Your task to perform on an android device: Open CNN.com Image 0: 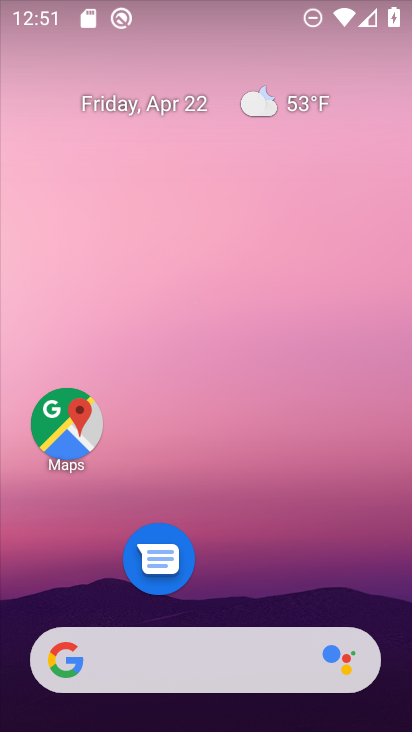
Step 0: drag from (231, 406) to (214, 111)
Your task to perform on an android device: Open CNN.com Image 1: 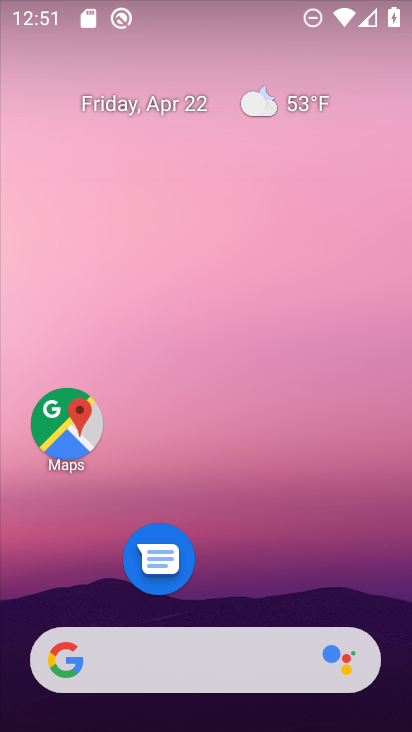
Step 1: drag from (238, 678) to (239, 92)
Your task to perform on an android device: Open CNN.com Image 2: 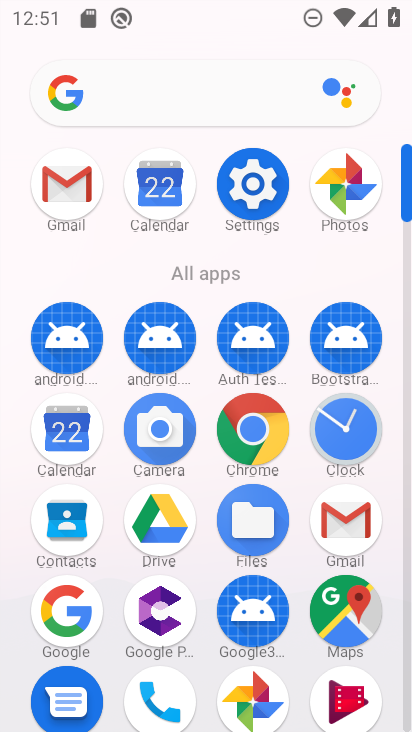
Step 2: click (253, 427)
Your task to perform on an android device: Open CNN.com Image 3: 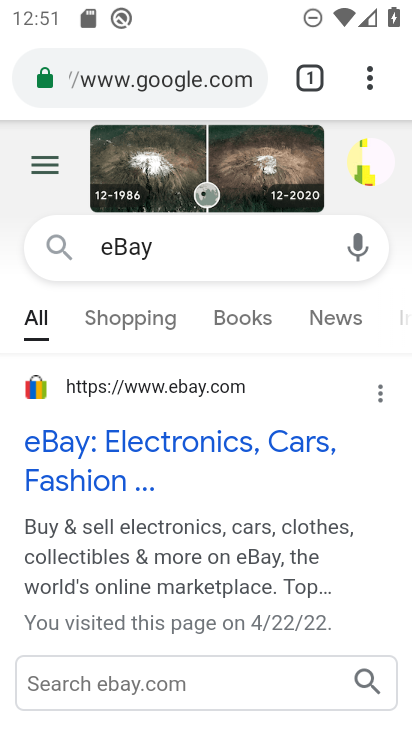
Step 3: drag from (368, 81) to (113, 171)
Your task to perform on an android device: Open CNN.com Image 4: 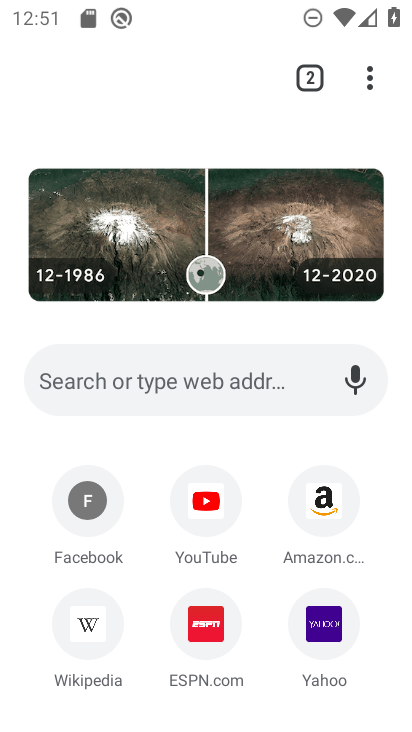
Step 4: click (213, 374)
Your task to perform on an android device: Open CNN.com Image 5: 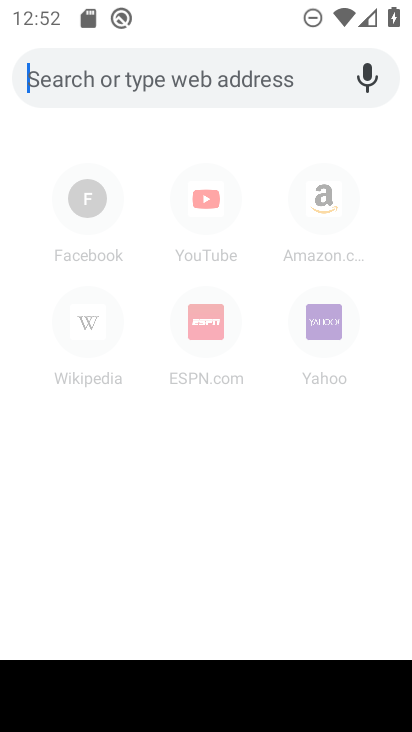
Step 5: type "CNN.com"
Your task to perform on an android device: Open CNN.com Image 6: 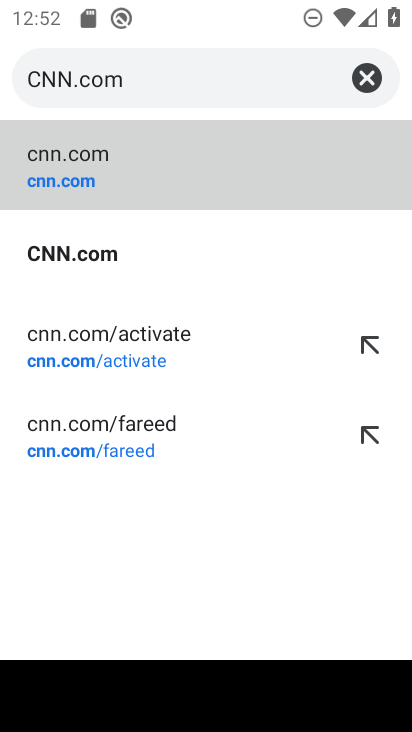
Step 6: click (60, 149)
Your task to perform on an android device: Open CNN.com Image 7: 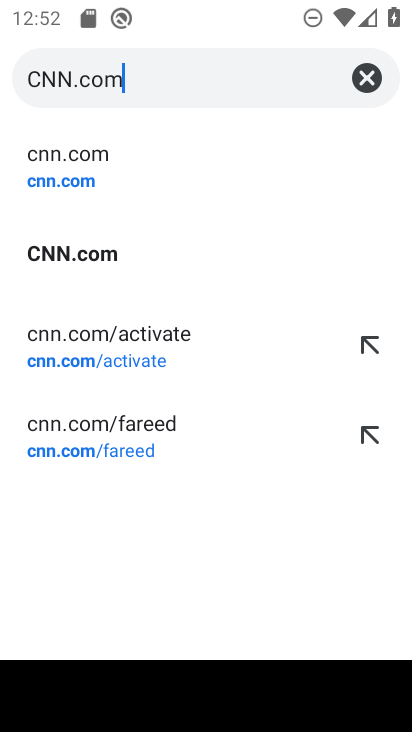
Step 7: click (61, 150)
Your task to perform on an android device: Open CNN.com Image 8: 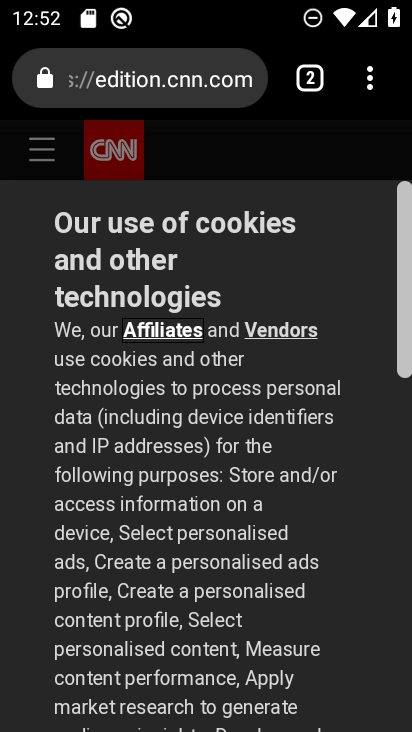
Step 8: task complete